Your task to perform on an android device: Open Chrome and go to settings Image 0: 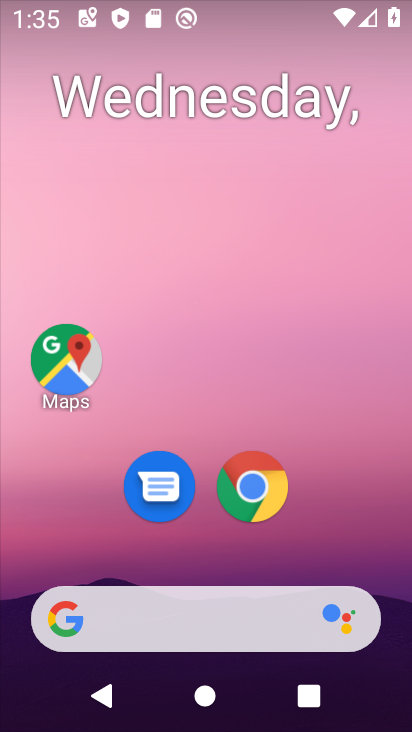
Step 0: click (241, 495)
Your task to perform on an android device: Open Chrome and go to settings Image 1: 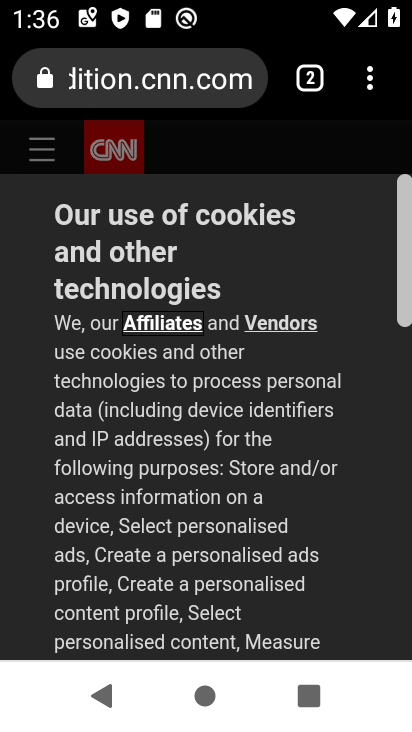
Step 1: task complete